Your task to perform on an android device: turn on javascript in the chrome app Image 0: 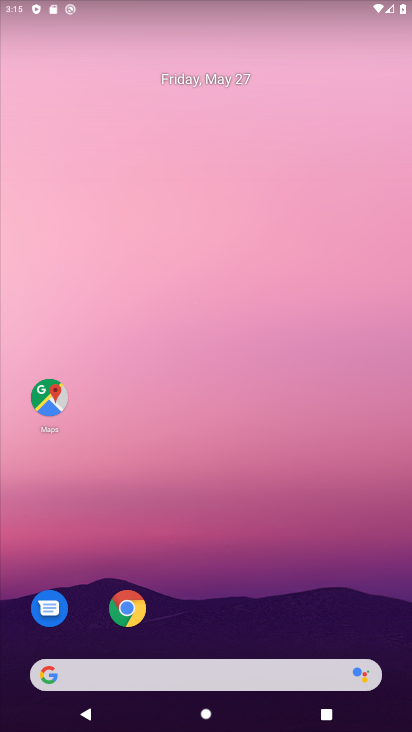
Step 0: click (123, 610)
Your task to perform on an android device: turn on javascript in the chrome app Image 1: 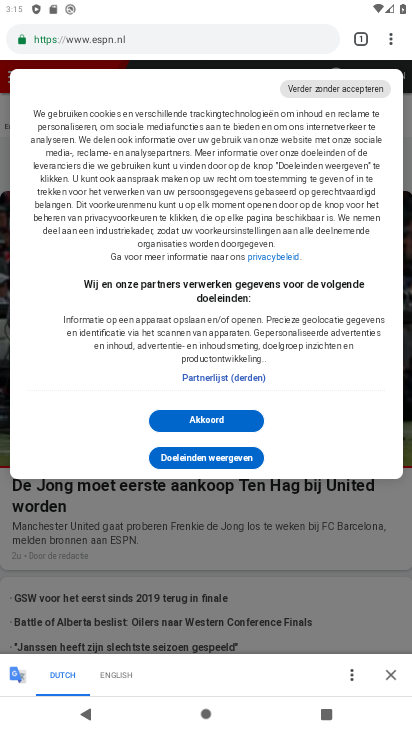
Step 1: press home button
Your task to perform on an android device: turn on javascript in the chrome app Image 2: 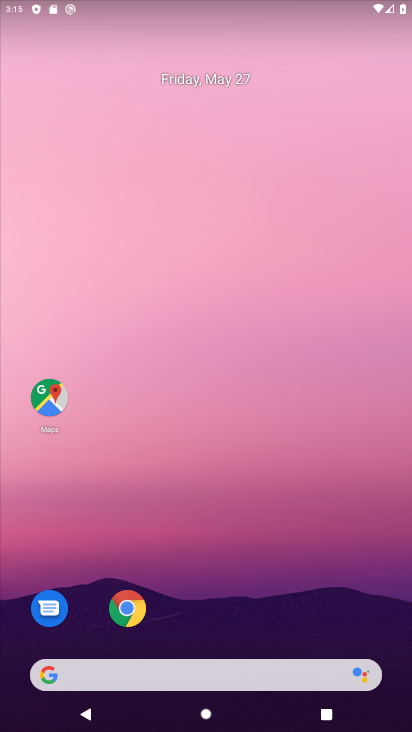
Step 2: click (124, 609)
Your task to perform on an android device: turn on javascript in the chrome app Image 3: 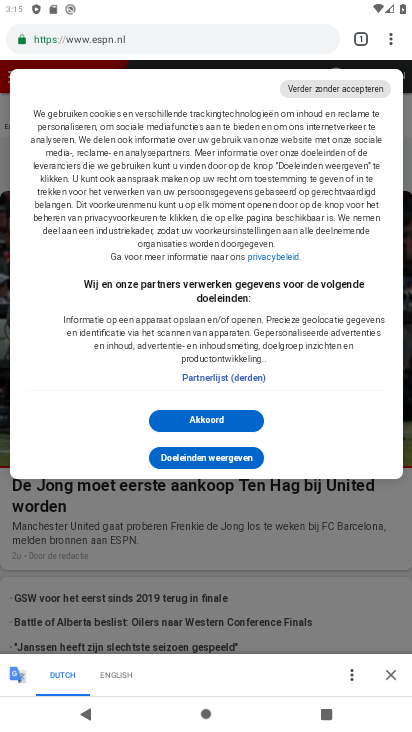
Step 3: click (384, 38)
Your task to perform on an android device: turn on javascript in the chrome app Image 4: 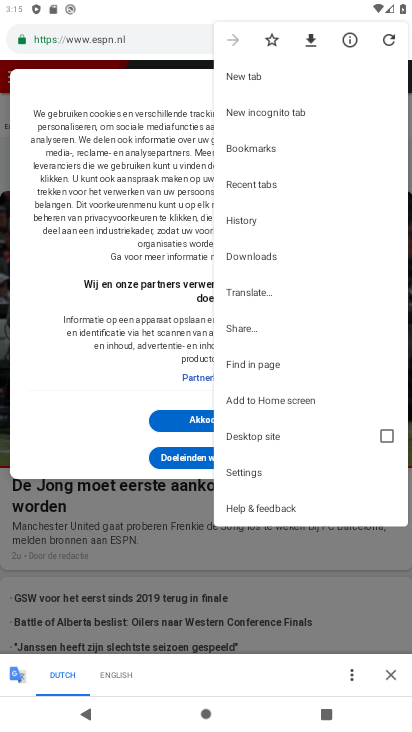
Step 4: click (247, 477)
Your task to perform on an android device: turn on javascript in the chrome app Image 5: 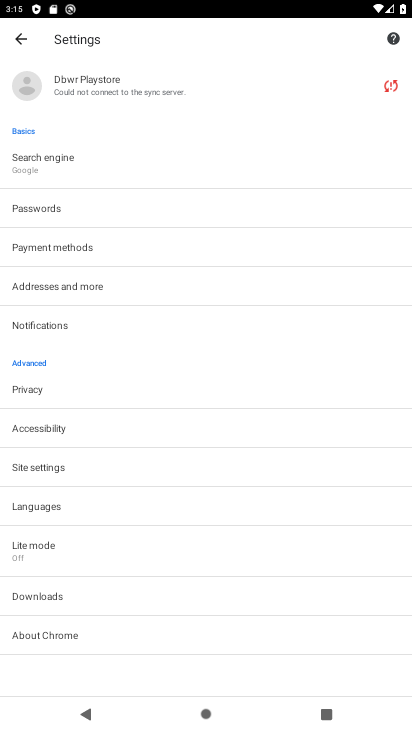
Step 5: click (32, 467)
Your task to perform on an android device: turn on javascript in the chrome app Image 6: 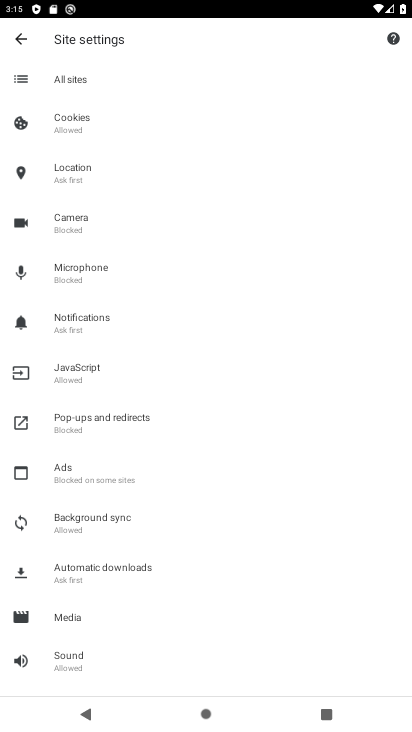
Step 6: click (71, 375)
Your task to perform on an android device: turn on javascript in the chrome app Image 7: 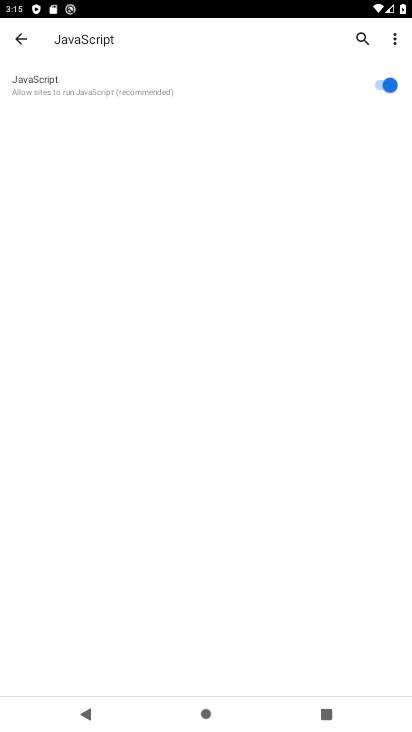
Step 7: task complete